Your task to perform on an android device: Open calendar and show me the fourth week of next month Image 0: 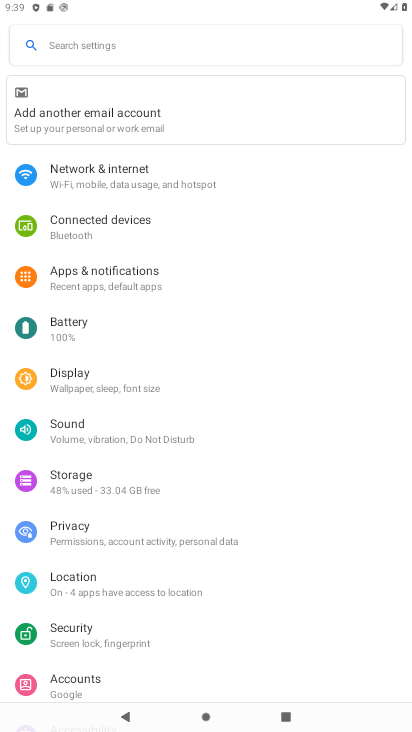
Step 0: press home button
Your task to perform on an android device: Open calendar and show me the fourth week of next month Image 1: 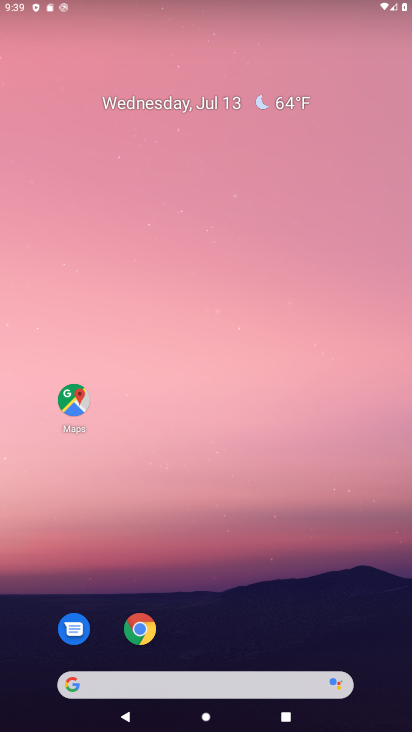
Step 1: drag from (301, 678) to (286, 95)
Your task to perform on an android device: Open calendar and show me the fourth week of next month Image 2: 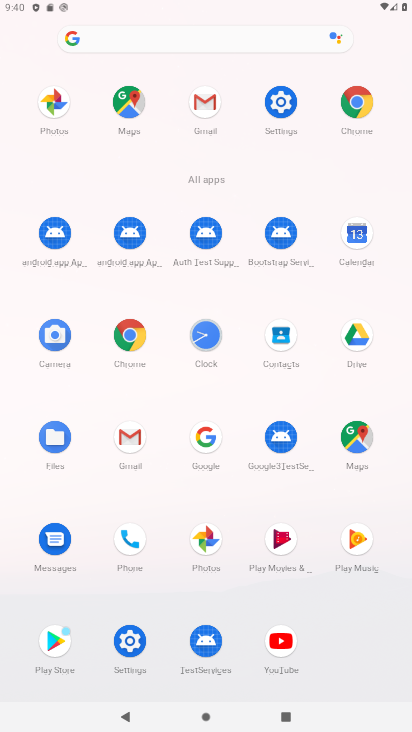
Step 2: click (356, 231)
Your task to perform on an android device: Open calendar and show me the fourth week of next month Image 3: 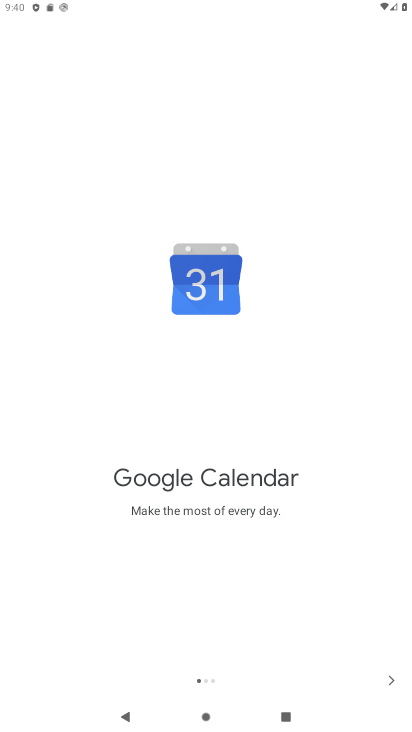
Step 3: click (387, 654)
Your task to perform on an android device: Open calendar and show me the fourth week of next month Image 4: 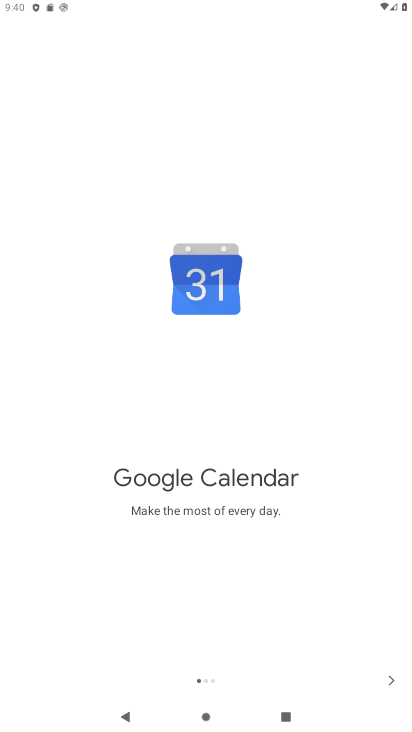
Step 4: click (393, 679)
Your task to perform on an android device: Open calendar and show me the fourth week of next month Image 5: 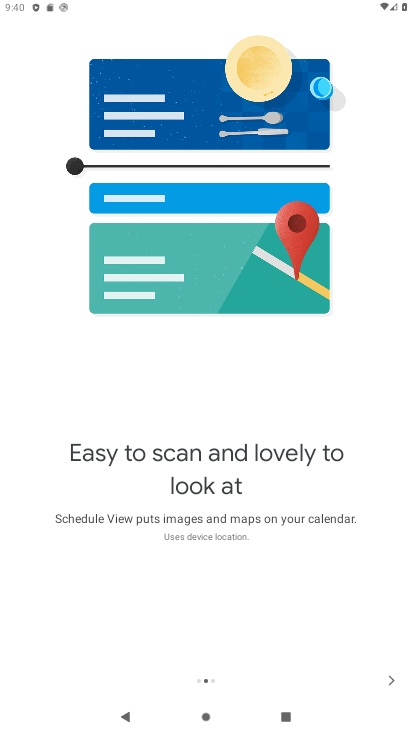
Step 5: click (393, 679)
Your task to perform on an android device: Open calendar and show me the fourth week of next month Image 6: 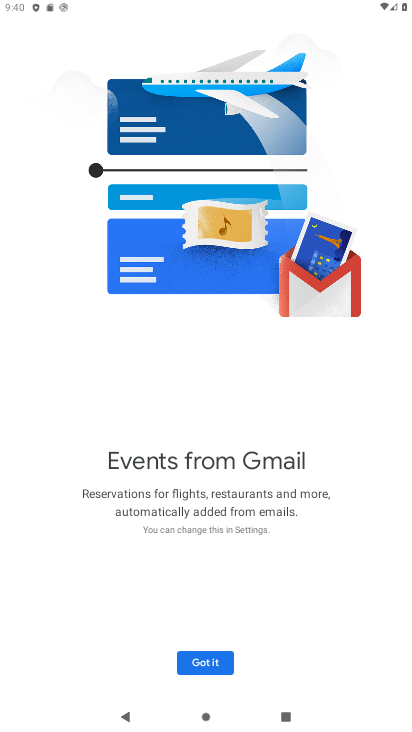
Step 6: click (197, 667)
Your task to perform on an android device: Open calendar and show me the fourth week of next month Image 7: 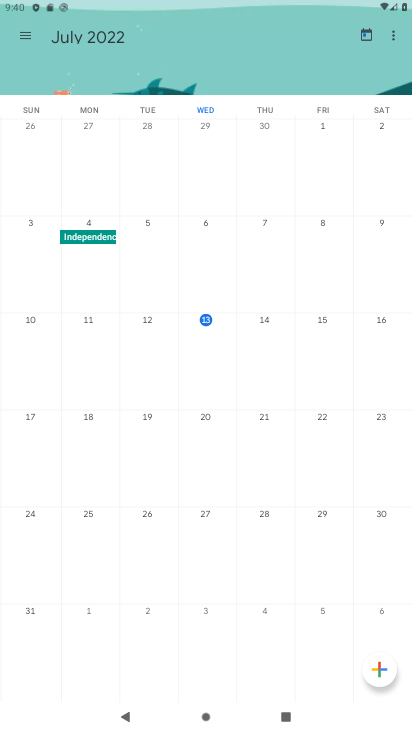
Step 7: task complete